Your task to perform on an android device: turn notification dots off Image 0: 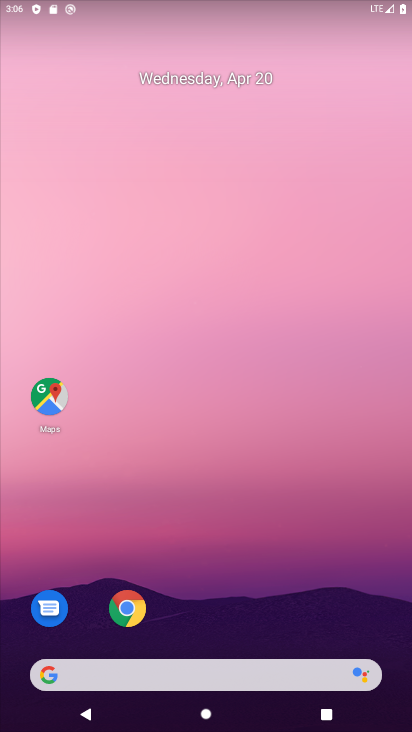
Step 0: drag from (208, 648) to (187, 80)
Your task to perform on an android device: turn notification dots off Image 1: 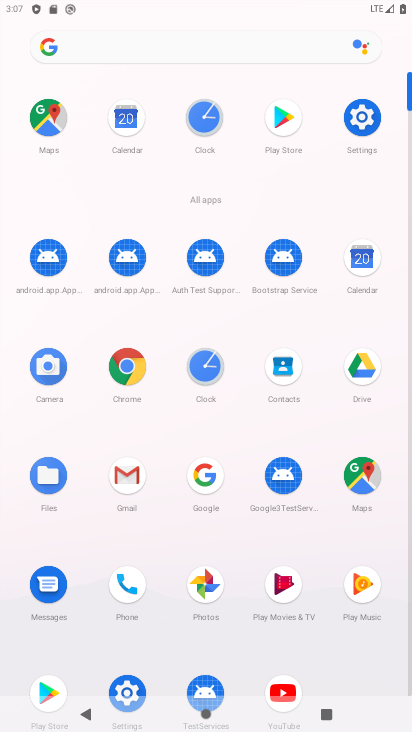
Step 1: click (356, 136)
Your task to perform on an android device: turn notification dots off Image 2: 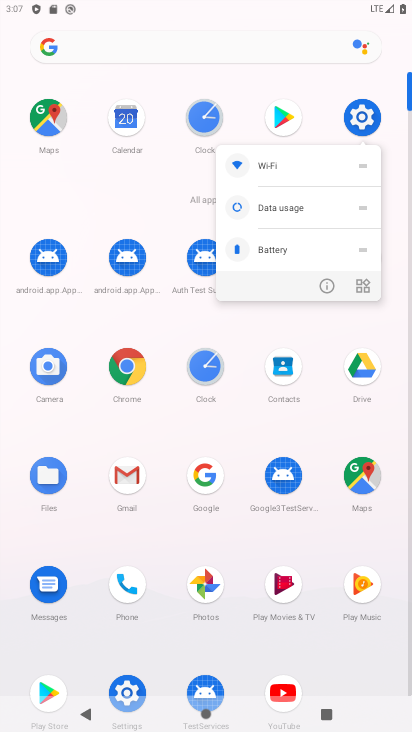
Step 2: click (360, 124)
Your task to perform on an android device: turn notification dots off Image 3: 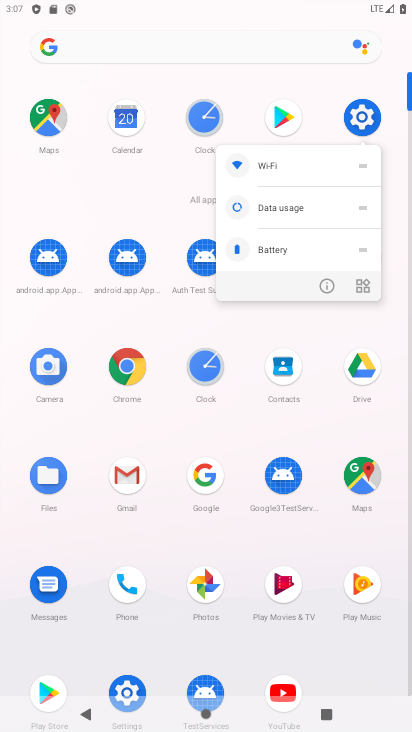
Step 3: click (361, 137)
Your task to perform on an android device: turn notification dots off Image 4: 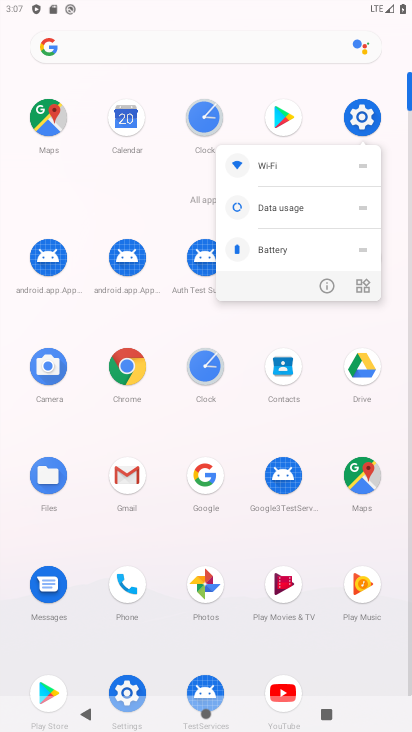
Step 4: click (358, 131)
Your task to perform on an android device: turn notification dots off Image 5: 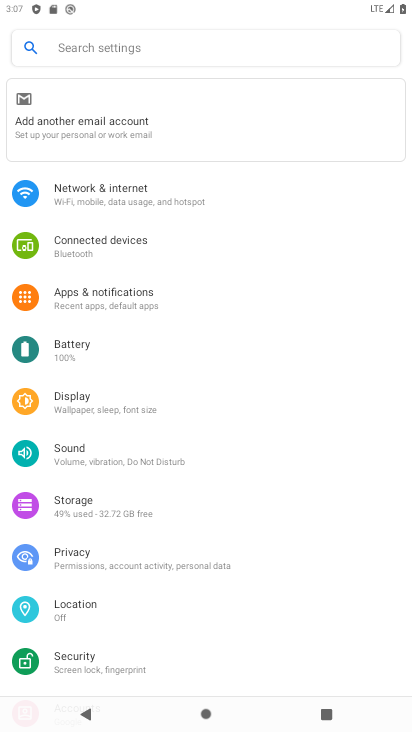
Step 5: click (110, 283)
Your task to perform on an android device: turn notification dots off Image 6: 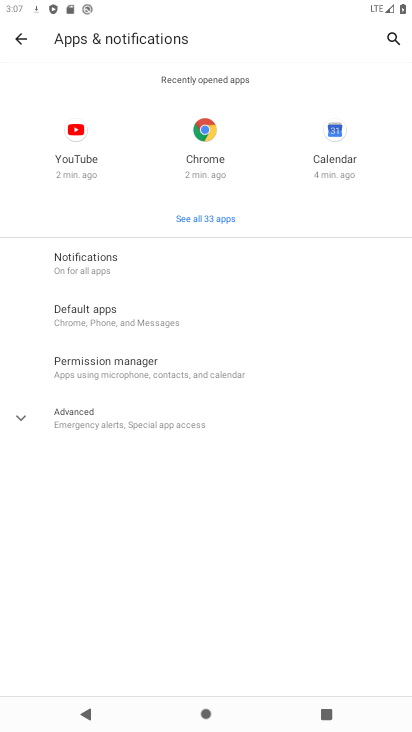
Step 6: click (99, 269)
Your task to perform on an android device: turn notification dots off Image 7: 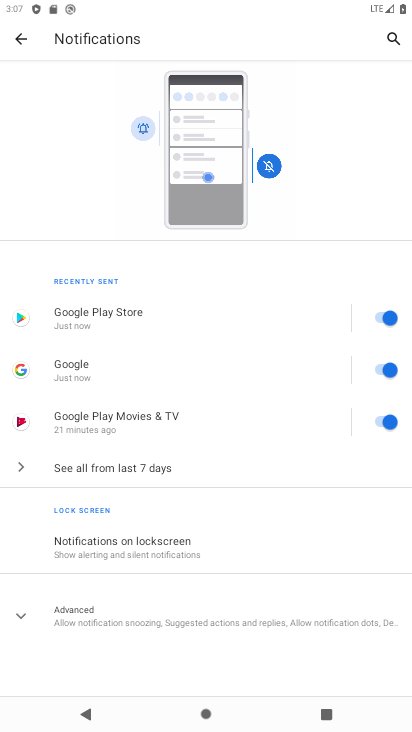
Step 7: click (113, 622)
Your task to perform on an android device: turn notification dots off Image 8: 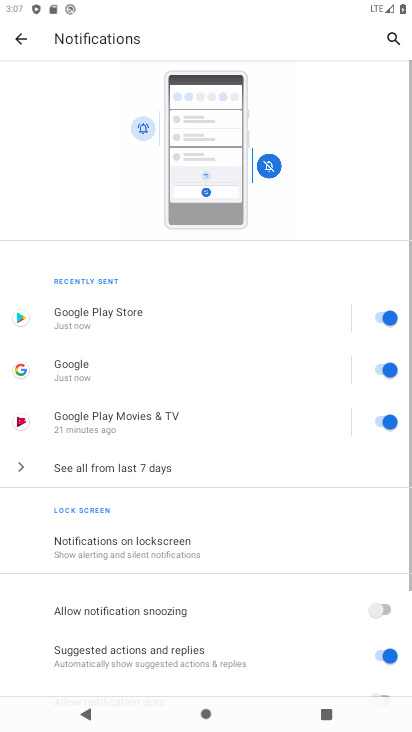
Step 8: task complete